Your task to perform on an android device: What's the weather going to be tomorrow? Image 0: 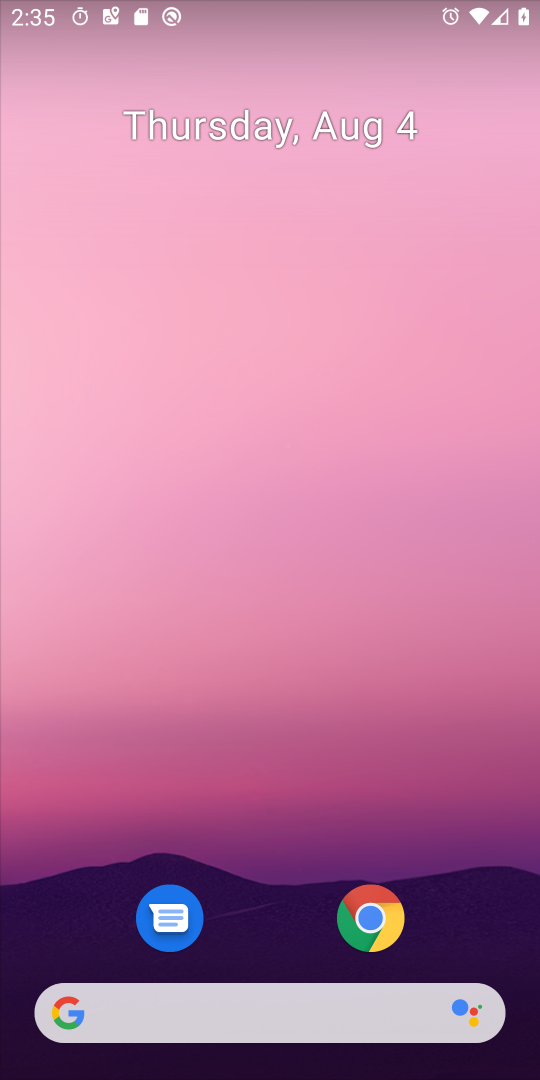
Step 0: drag from (251, 952) to (260, 368)
Your task to perform on an android device: What's the weather going to be tomorrow? Image 1: 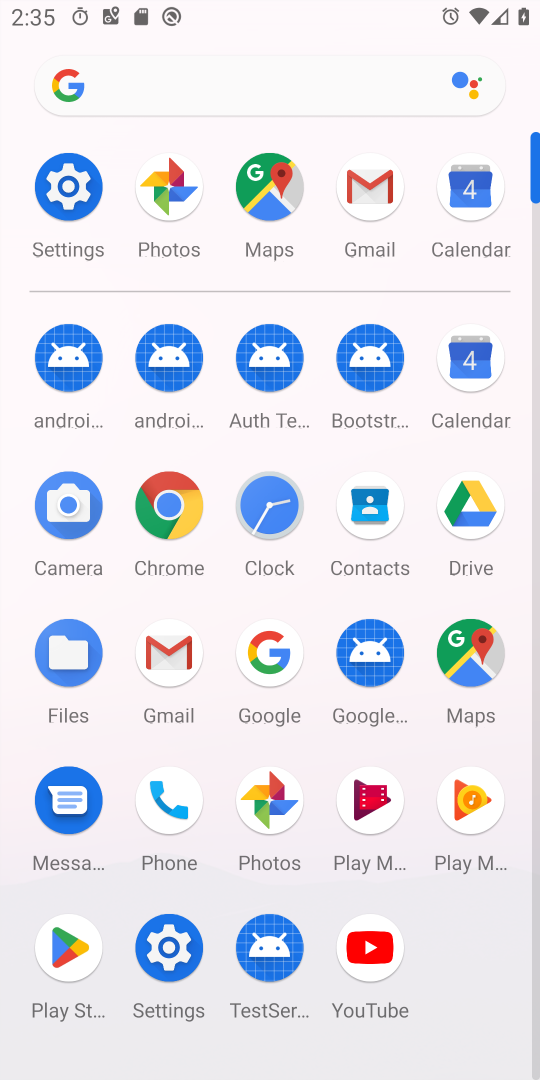
Step 1: click (254, 627)
Your task to perform on an android device: What's the weather going to be tomorrow? Image 2: 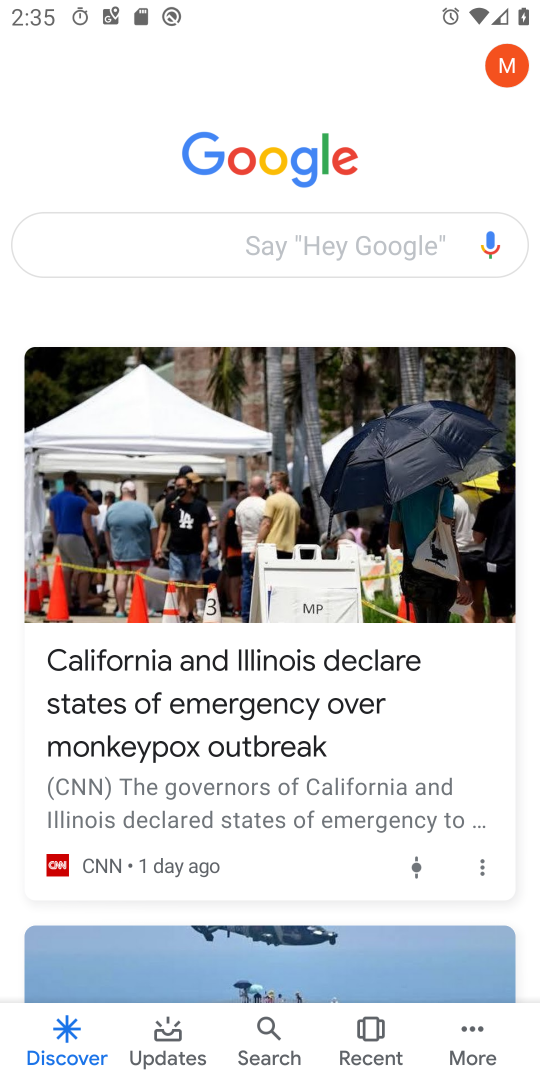
Step 2: click (295, 241)
Your task to perform on an android device: What's the weather going to be tomorrow? Image 3: 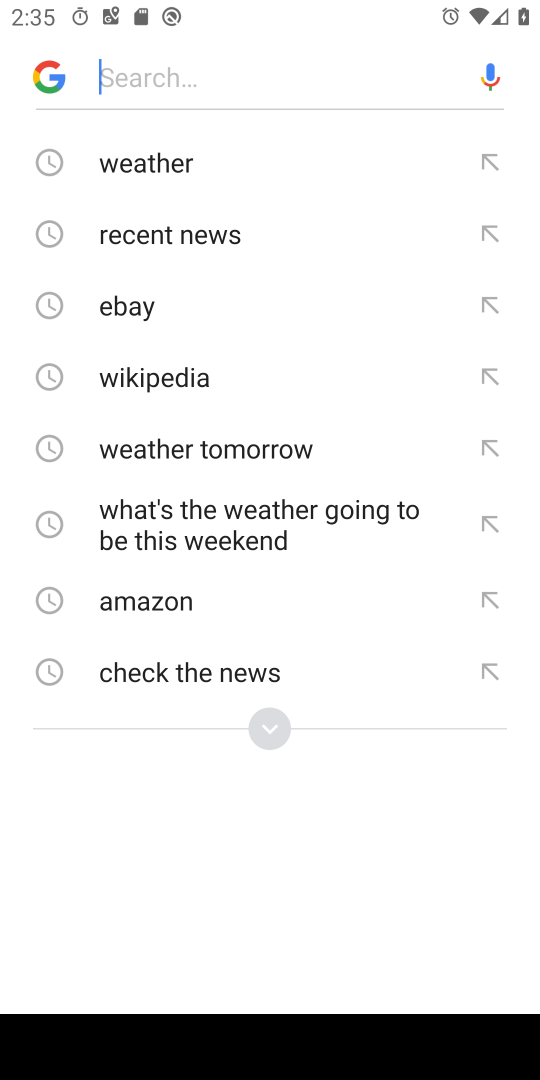
Step 3: click (167, 173)
Your task to perform on an android device: What's the weather going to be tomorrow? Image 4: 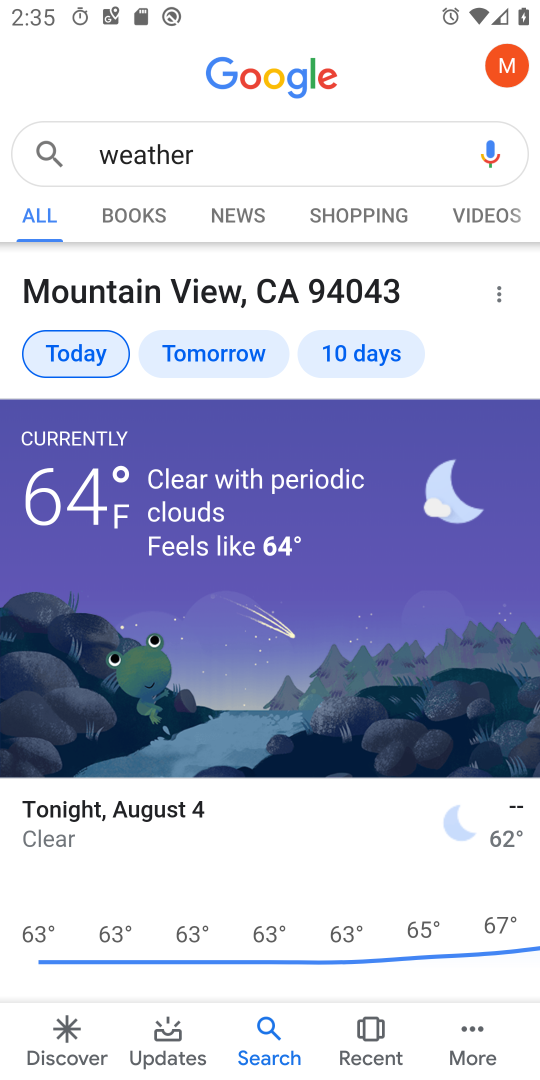
Step 4: click (219, 353)
Your task to perform on an android device: What's the weather going to be tomorrow? Image 5: 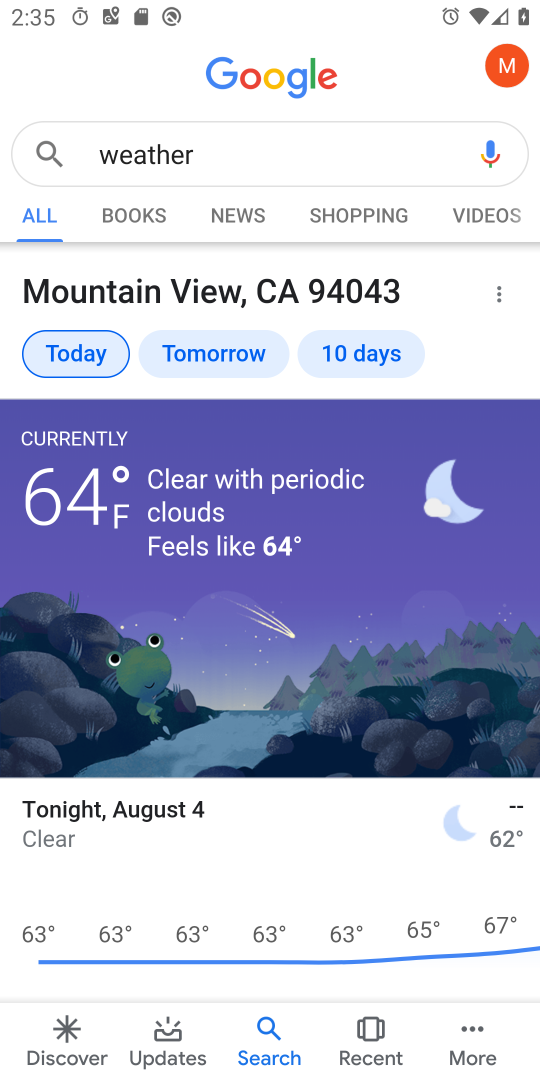
Step 5: click (224, 348)
Your task to perform on an android device: What's the weather going to be tomorrow? Image 6: 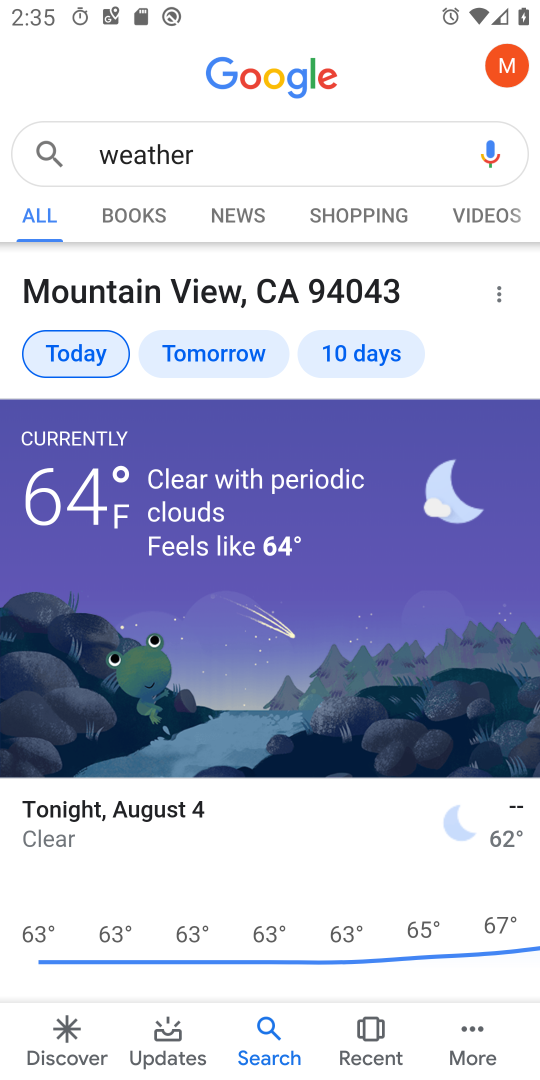
Step 6: task complete